Your task to perform on an android device: Go to privacy settings Image 0: 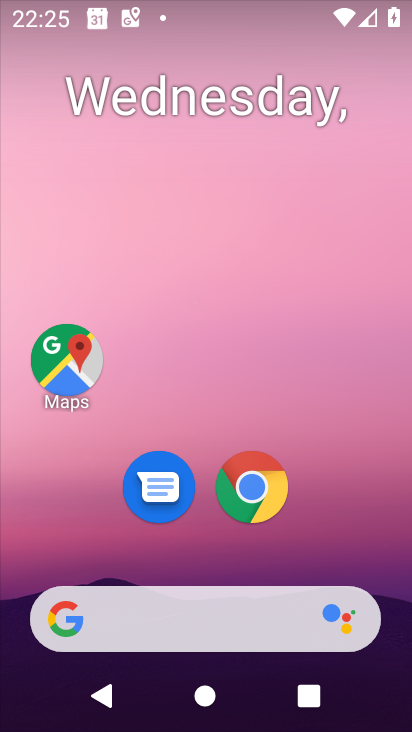
Step 0: drag from (137, 685) to (245, 81)
Your task to perform on an android device: Go to privacy settings Image 1: 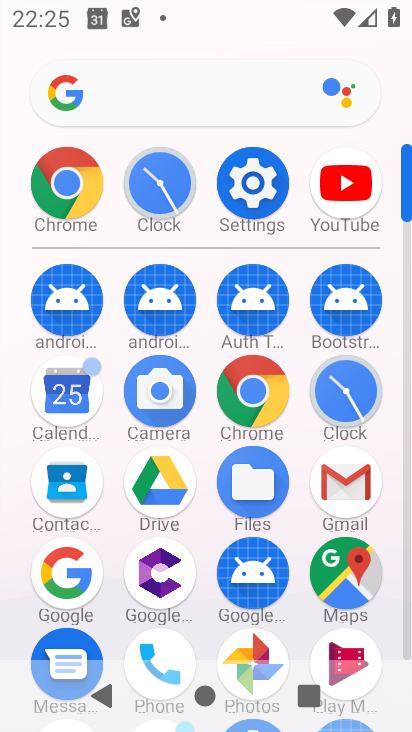
Step 1: click (262, 191)
Your task to perform on an android device: Go to privacy settings Image 2: 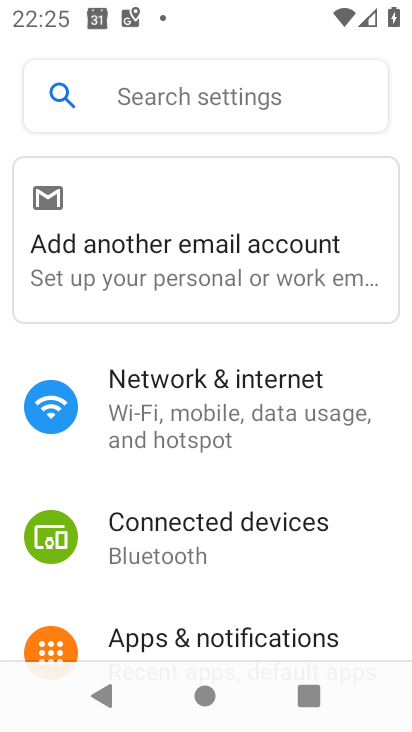
Step 2: drag from (187, 602) to (144, 137)
Your task to perform on an android device: Go to privacy settings Image 3: 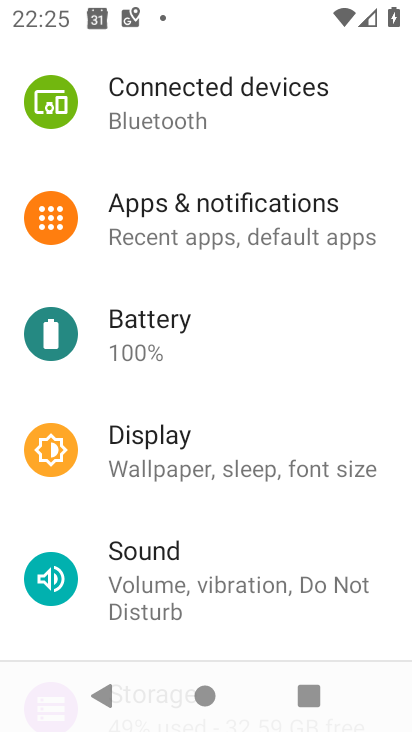
Step 3: drag from (189, 559) to (178, 149)
Your task to perform on an android device: Go to privacy settings Image 4: 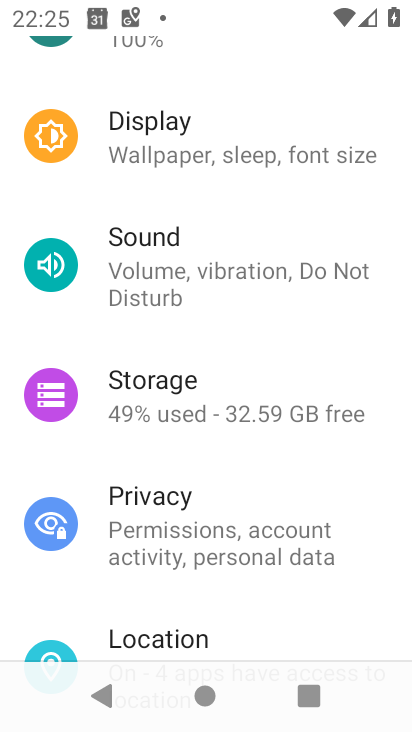
Step 4: click (126, 513)
Your task to perform on an android device: Go to privacy settings Image 5: 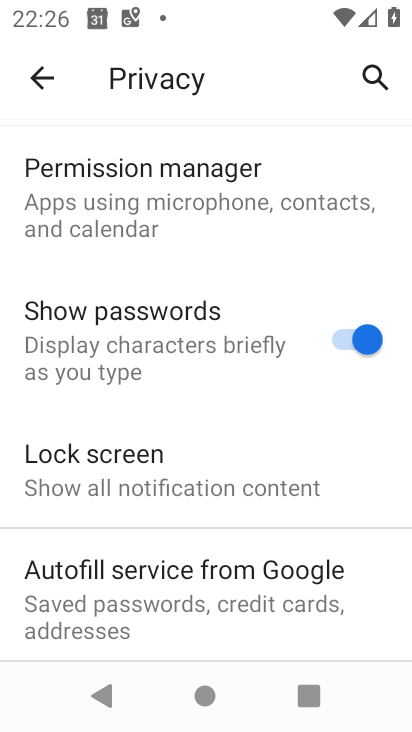
Step 5: task complete